Your task to perform on an android device: Open Google Chrome and click the shortcut for Amazon.com Image 0: 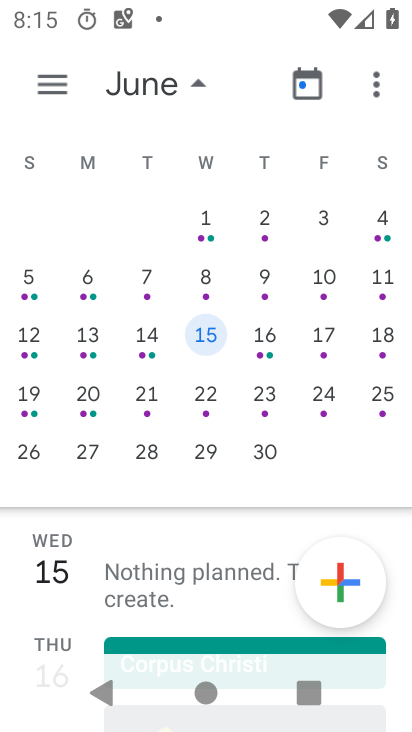
Step 0: press home button
Your task to perform on an android device: Open Google Chrome and click the shortcut for Amazon.com Image 1: 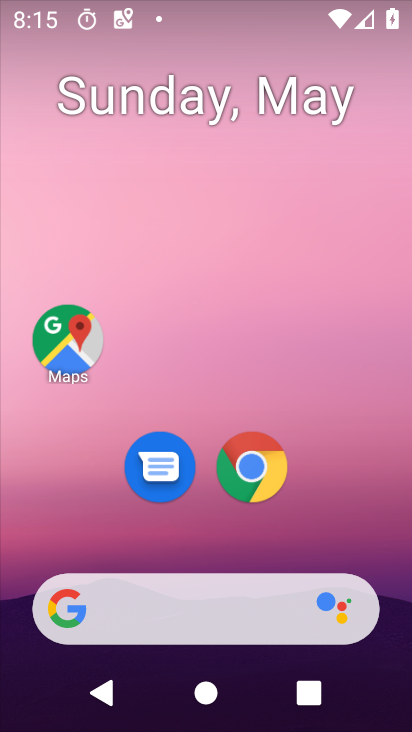
Step 1: click (258, 458)
Your task to perform on an android device: Open Google Chrome and click the shortcut for Amazon.com Image 2: 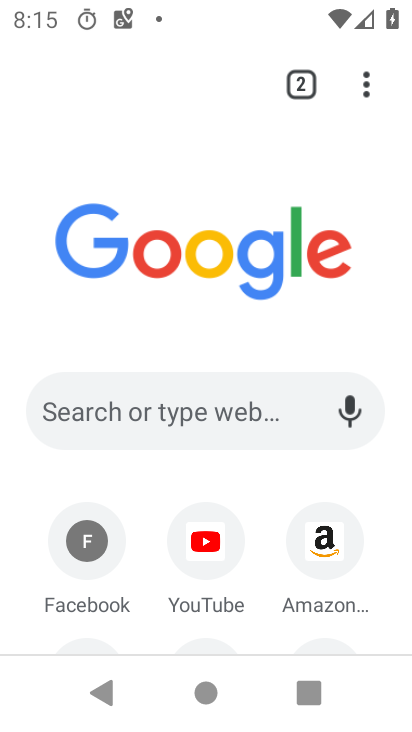
Step 2: click (323, 545)
Your task to perform on an android device: Open Google Chrome and click the shortcut for Amazon.com Image 3: 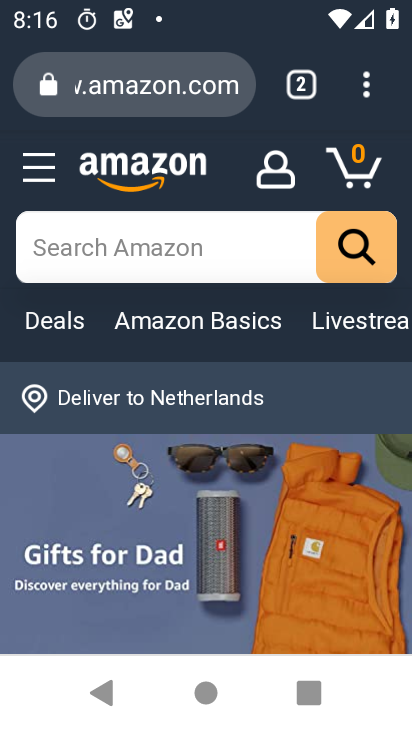
Step 3: task complete